Your task to perform on an android device: toggle notifications settings in the gmail app Image 0: 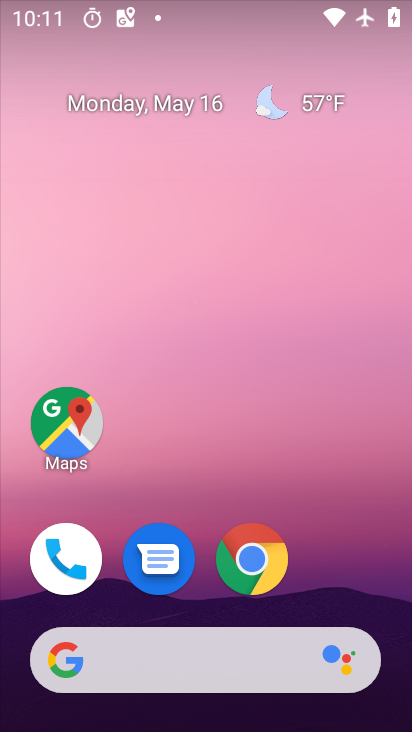
Step 0: drag from (317, 425) to (232, 98)
Your task to perform on an android device: toggle notifications settings in the gmail app Image 1: 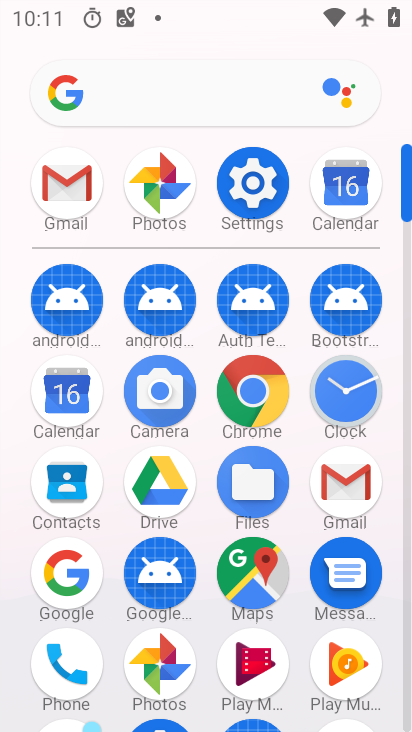
Step 1: click (78, 182)
Your task to perform on an android device: toggle notifications settings in the gmail app Image 2: 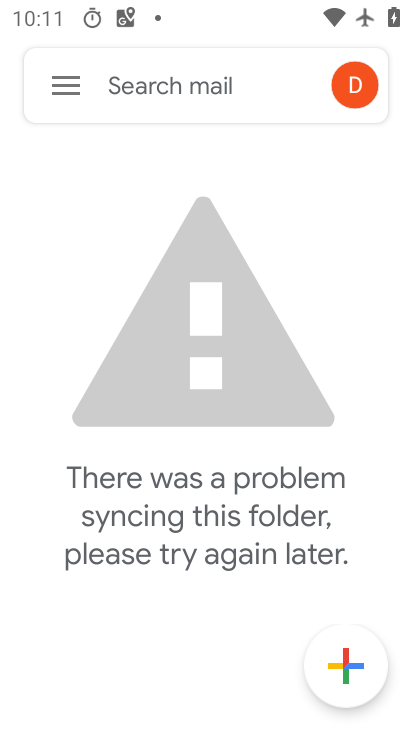
Step 2: click (53, 79)
Your task to perform on an android device: toggle notifications settings in the gmail app Image 3: 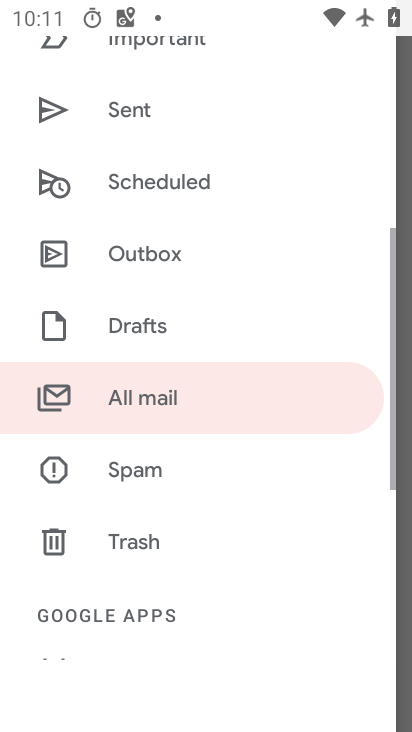
Step 3: drag from (144, 613) to (215, 222)
Your task to perform on an android device: toggle notifications settings in the gmail app Image 4: 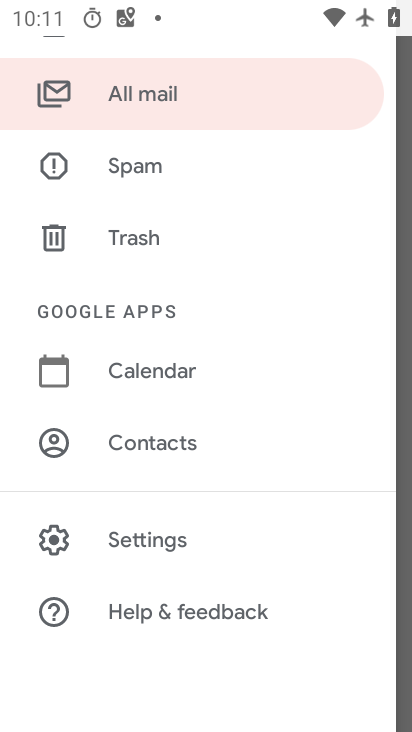
Step 4: click (132, 546)
Your task to perform on an android device: toggle notifications settings in the gmail app Image 5: 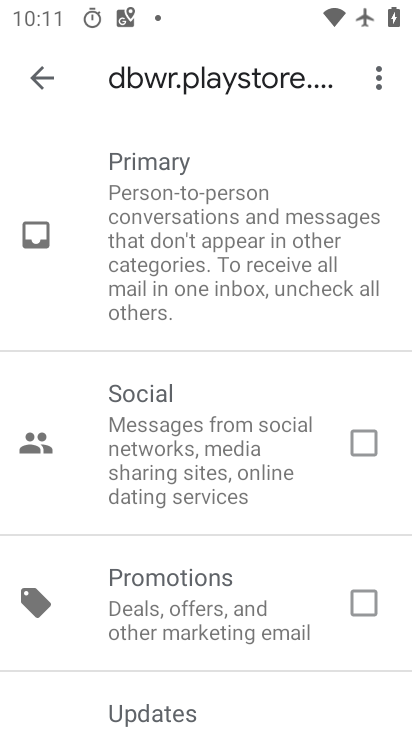
Step 5: click (53, 76)
Your task to perform on an android device: toggle notifications settings in the gmail app Image 6: 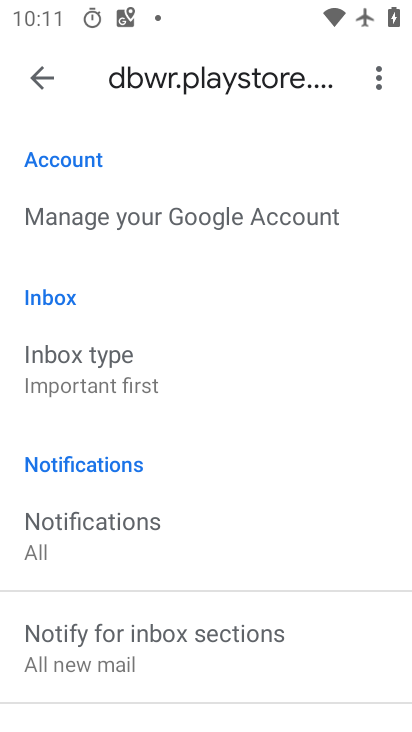
Step 6: drag from (194, 233) to (180, 605)
Your task to perform on an android device: toggle notifications settings in the gmail app Image 7: 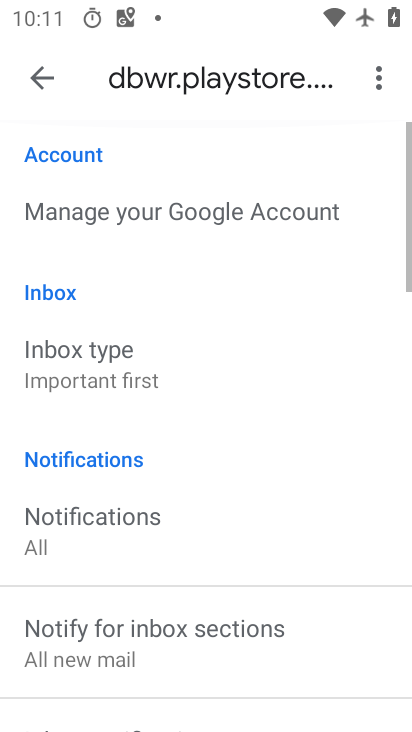
Step 7: drag from (180, 597) to (212, 360)
Your task to perform on an android device: toggle notifications settings in the gmail app Image 8: 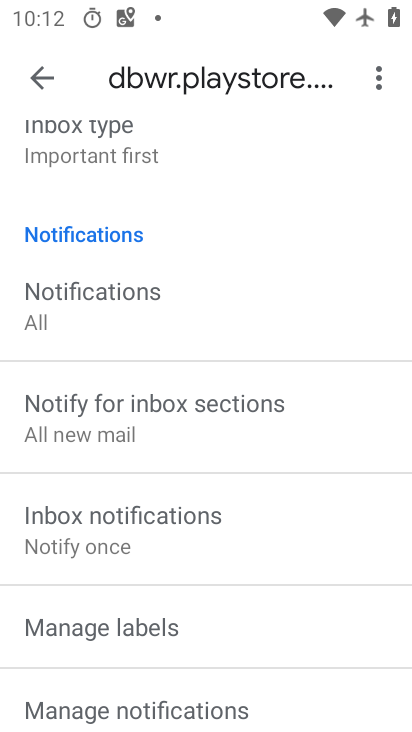
Step 8: click (196, 708)
Your task to perform on an android device: toggle notifications settings in the gmail app Image 9: 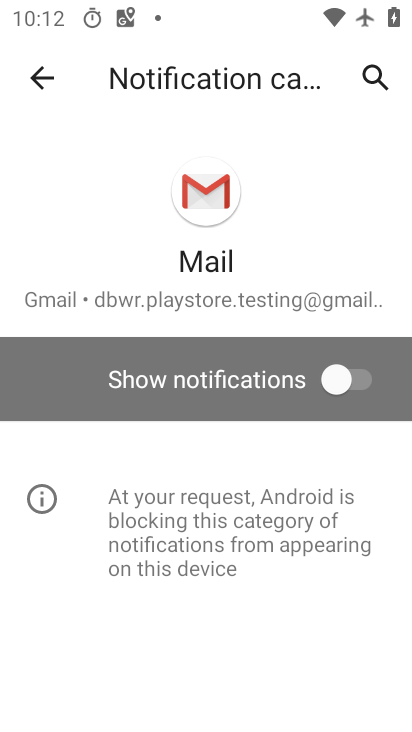
Step 9: click (352, 373)
Your task to perform on an android device: toggle notifications settings in the gmail app Image 10: 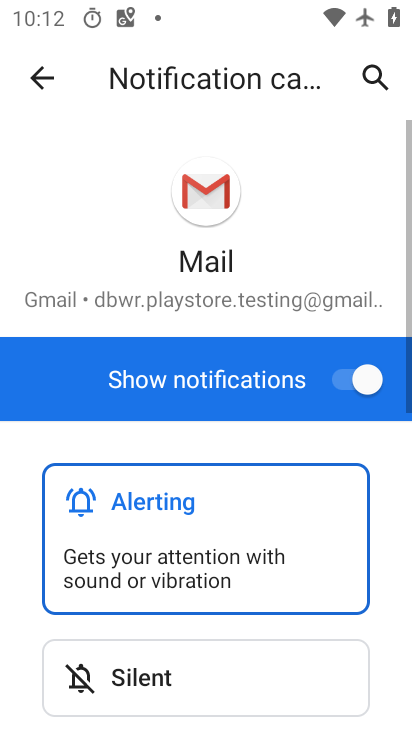
Step 10: task complete